Your task to perform on an android device: set the stopwatch Image 0: 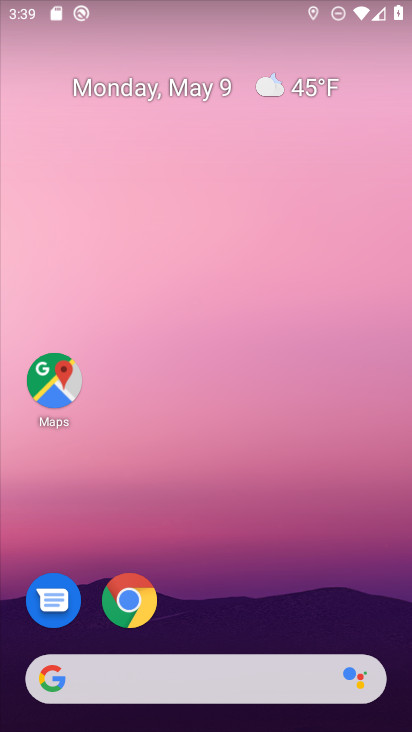
Step 0: drag from (208, 625) to (257, 172)
Your task to perform on an android device: set the stopwatch Image 1: 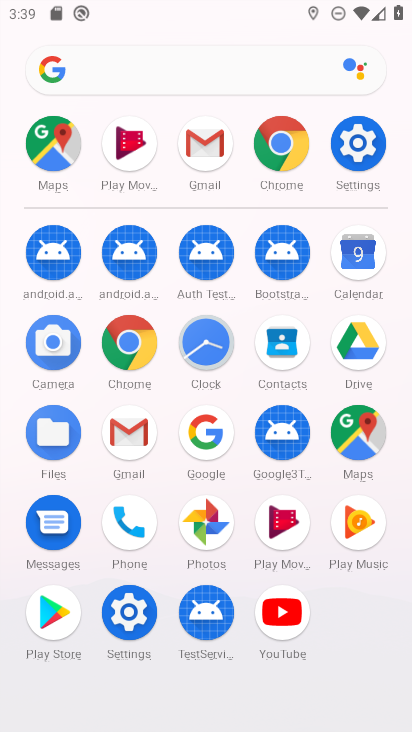
Step 1: click (213, 353)
Your task to perform on an android device: set the stopwatch Image 2: 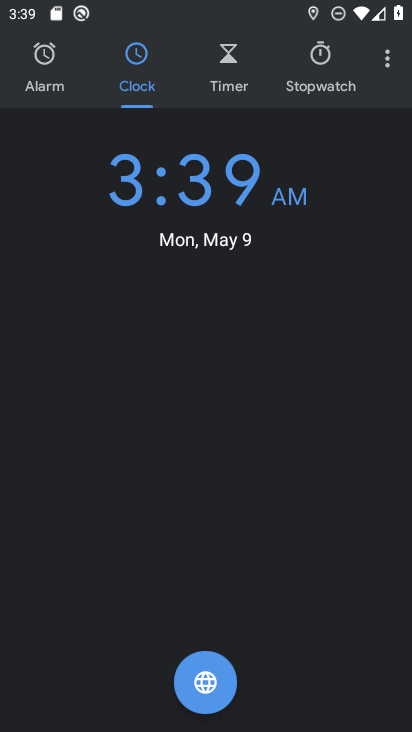
Step 2: click (325, 48)
Your task to perform on an android device: set the stopwatch Image 3: 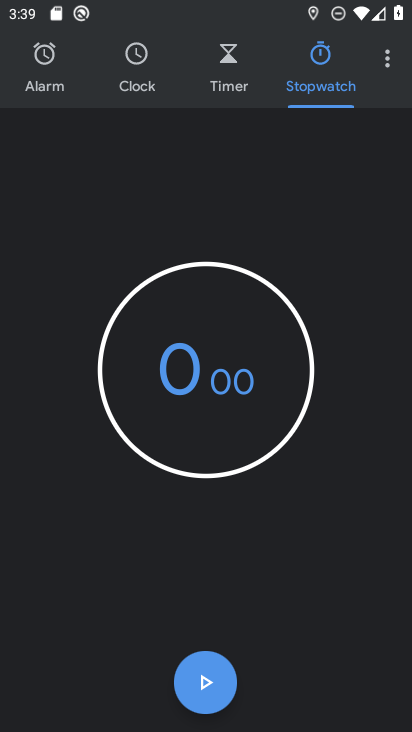
Step 3: click (193, 695)
Your task to perform on an android device: set the stopwatch Image 4: 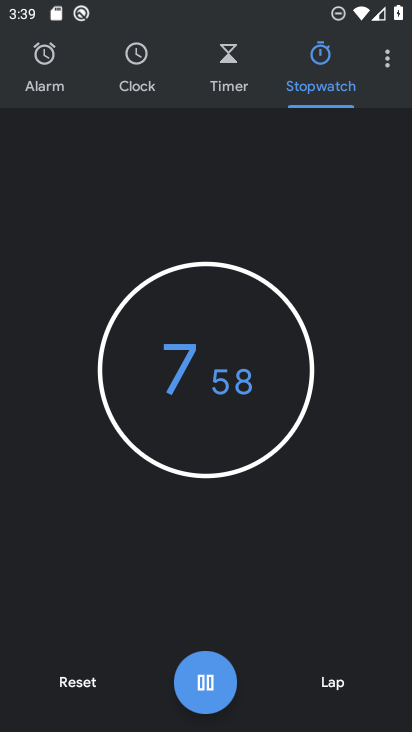
Step 4: task complete